Your task to perform on an android device: uninstall "HBO Max: Stream TV & Movies" Image 0: 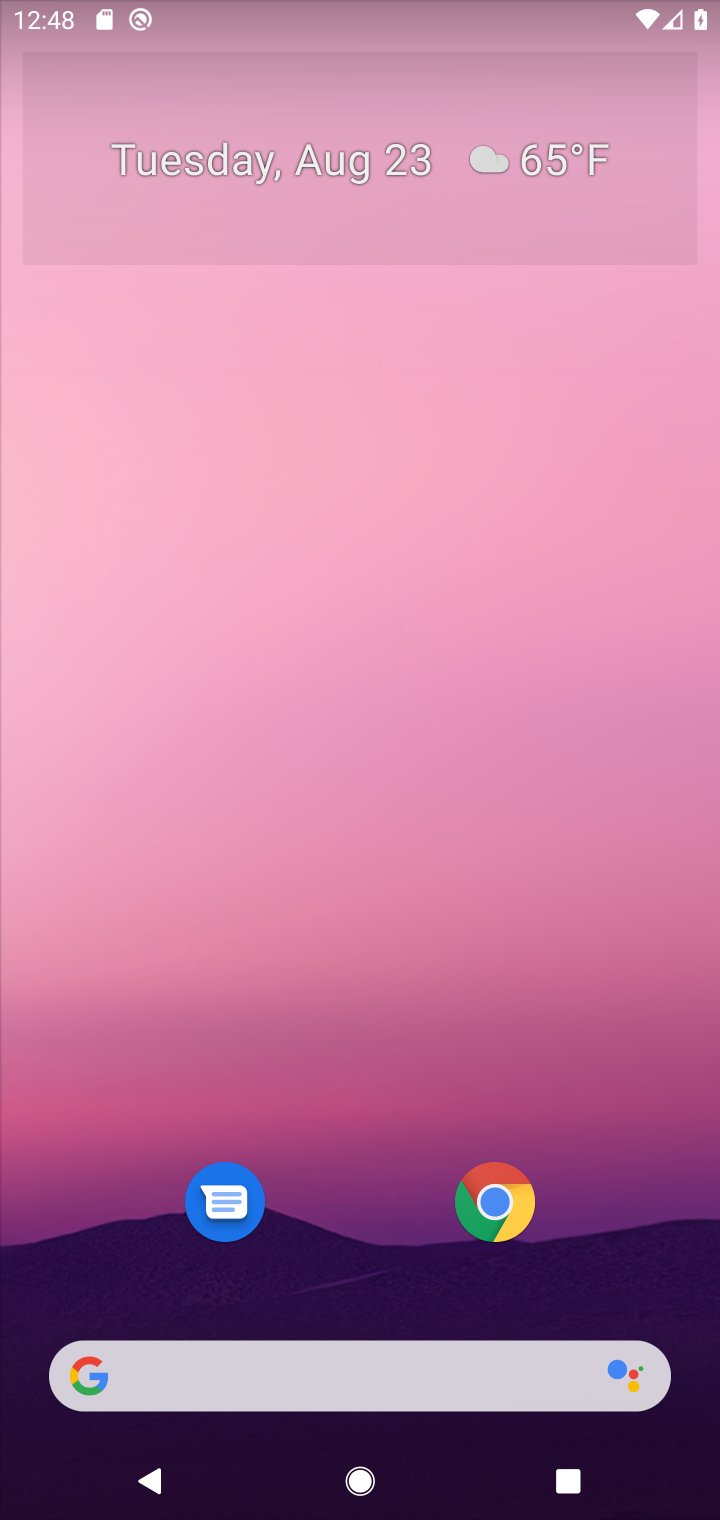
Step 0: drag from (405, 1327) to (495, 126)
Your task to perform on an android device: uninstall "HBO Max: Stream TV & Movies" Image 1: 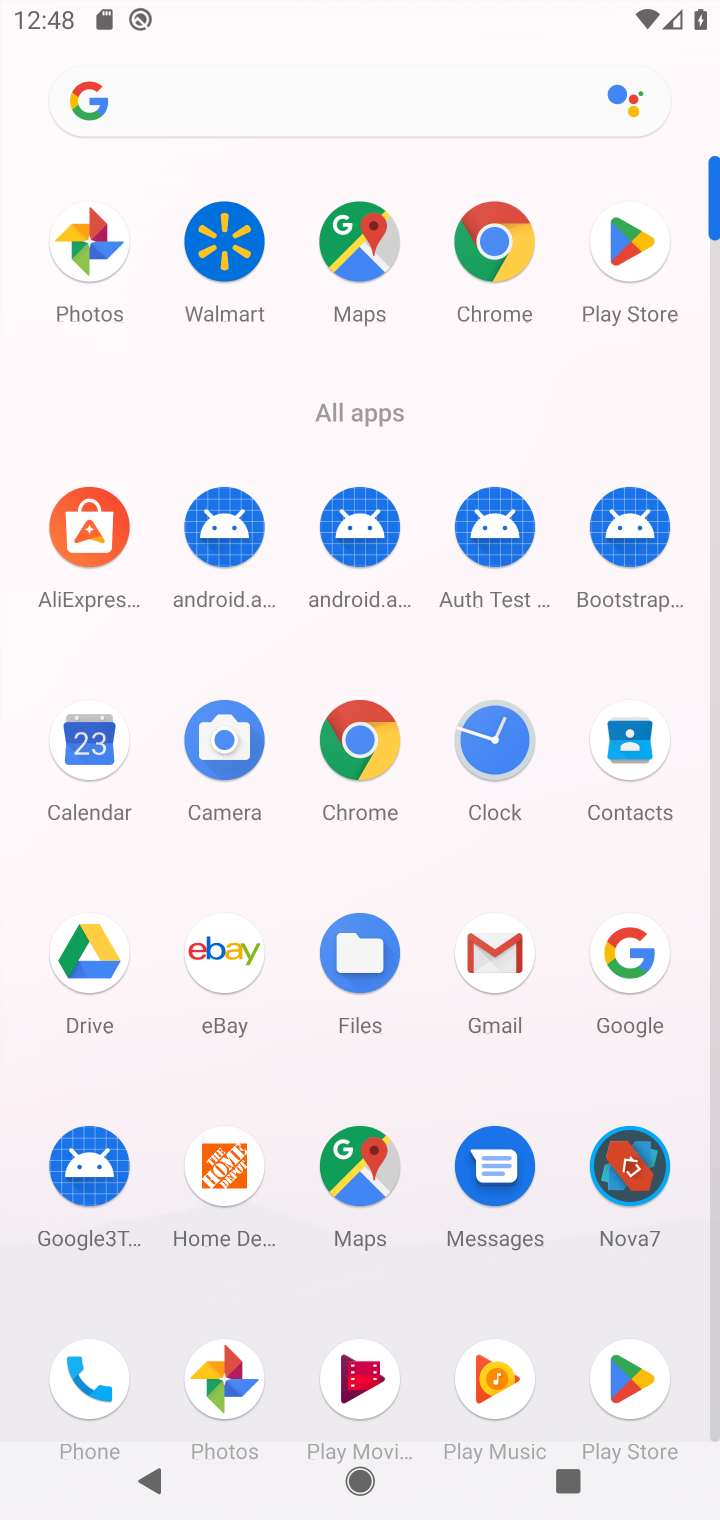
Step 1: click (611, 251)
Your task to perform on an android device: uninstall "HBO Max: Stream TV & Movies" Image 2: 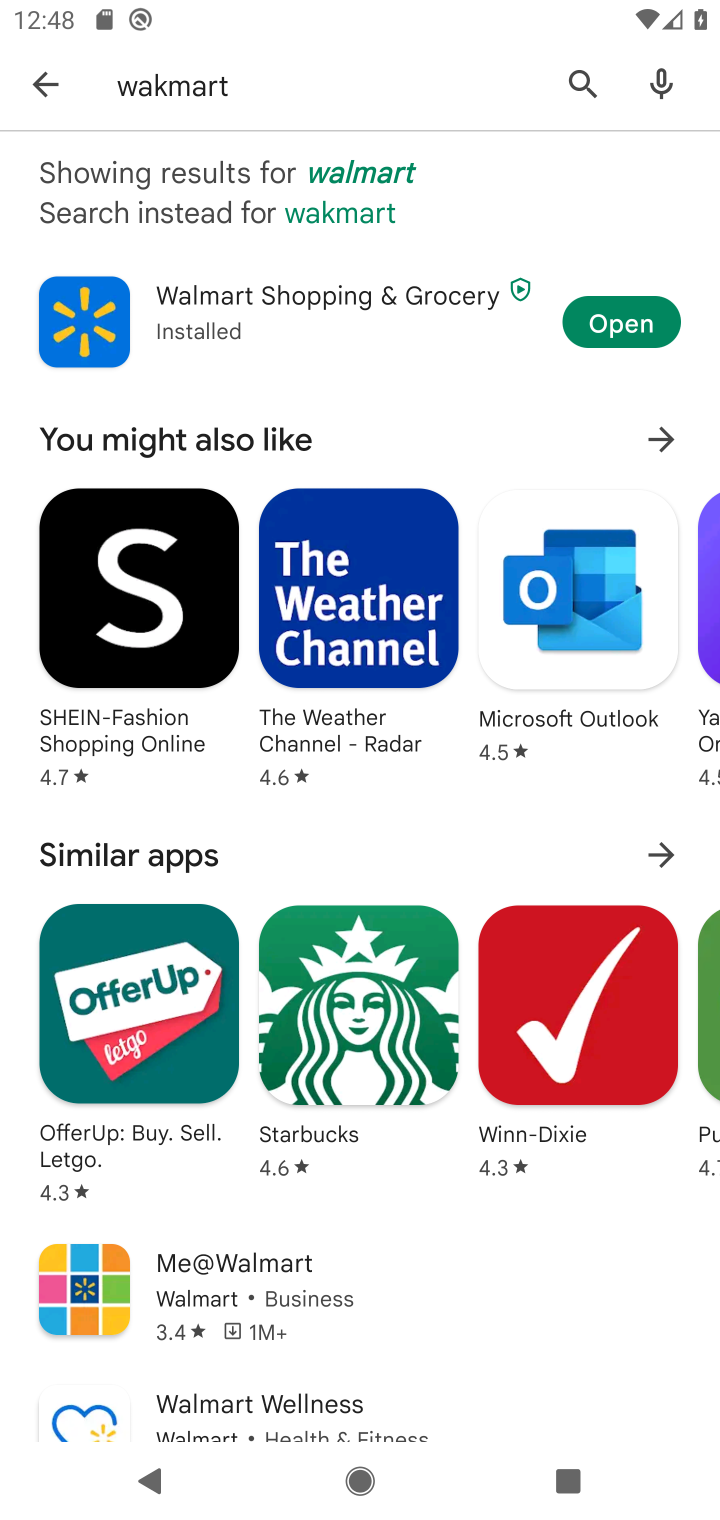
Step 2: click (576, 75)
Your task to perform on an android device: uninstall "HBO Max: Stream TV & Movies" Image 3: 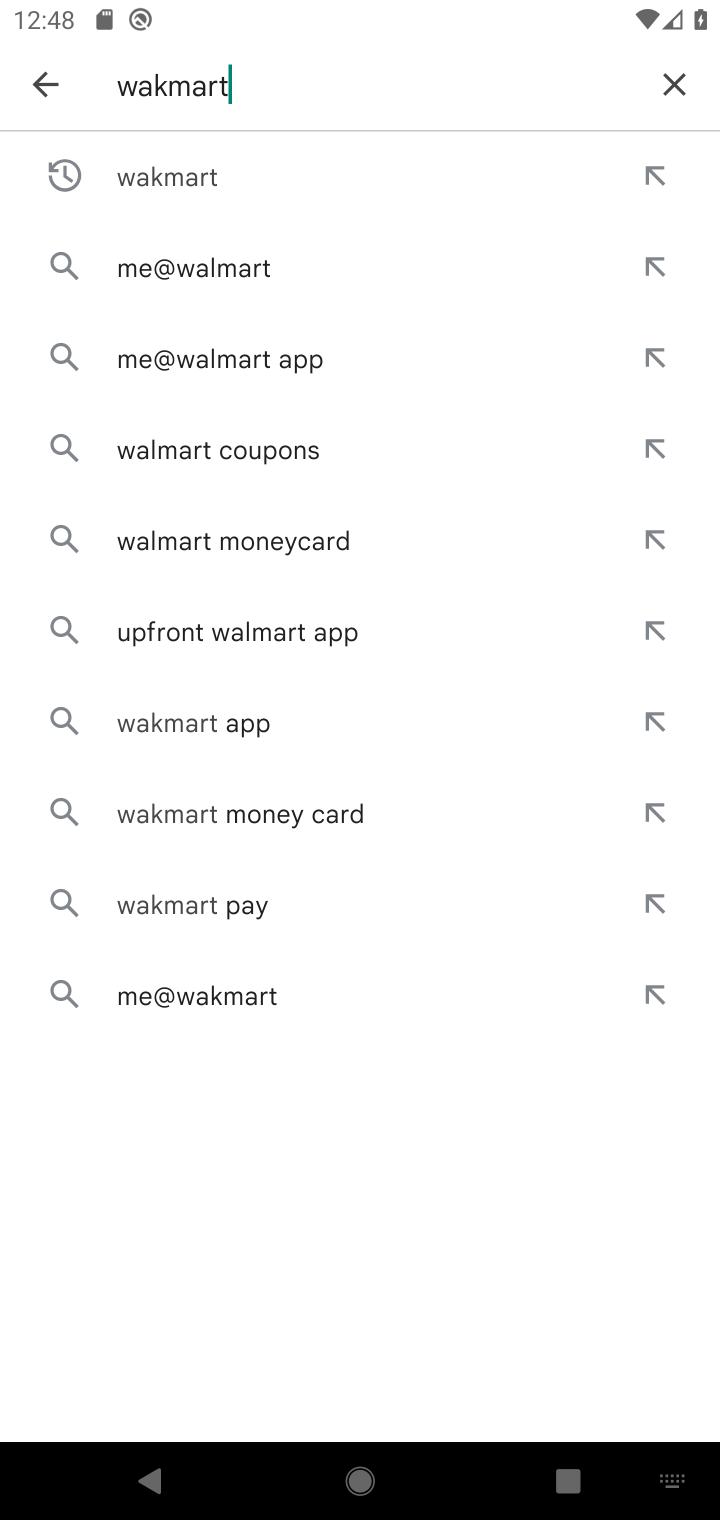
Step 3: click (668, 90)
Your task to perform on an android device: uninstall "HBO Max: Stream TV & Movies" Image 4: 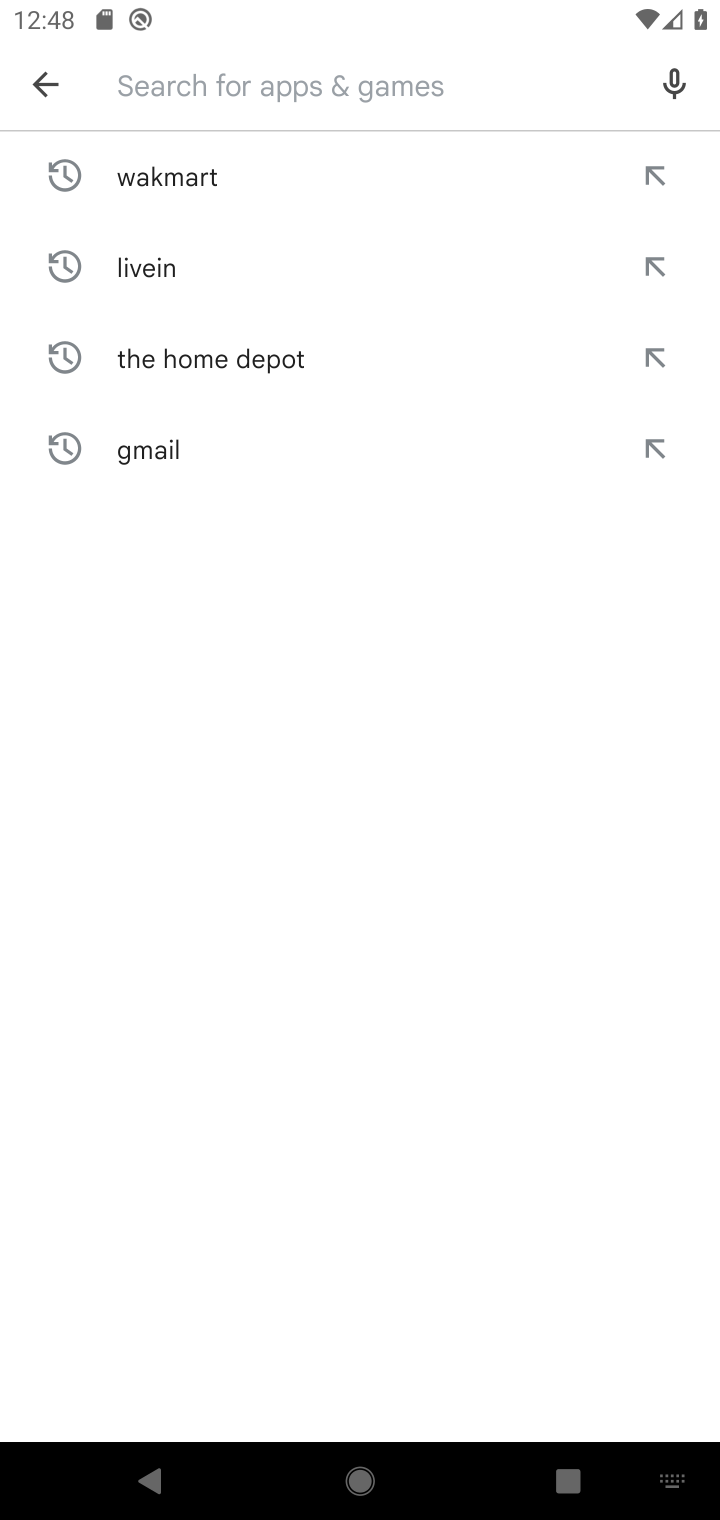
Step 4: type "hbo max"
Your task to perform on an android device: uninstall "HBO Max: Stream TV & Movies" Image 5: 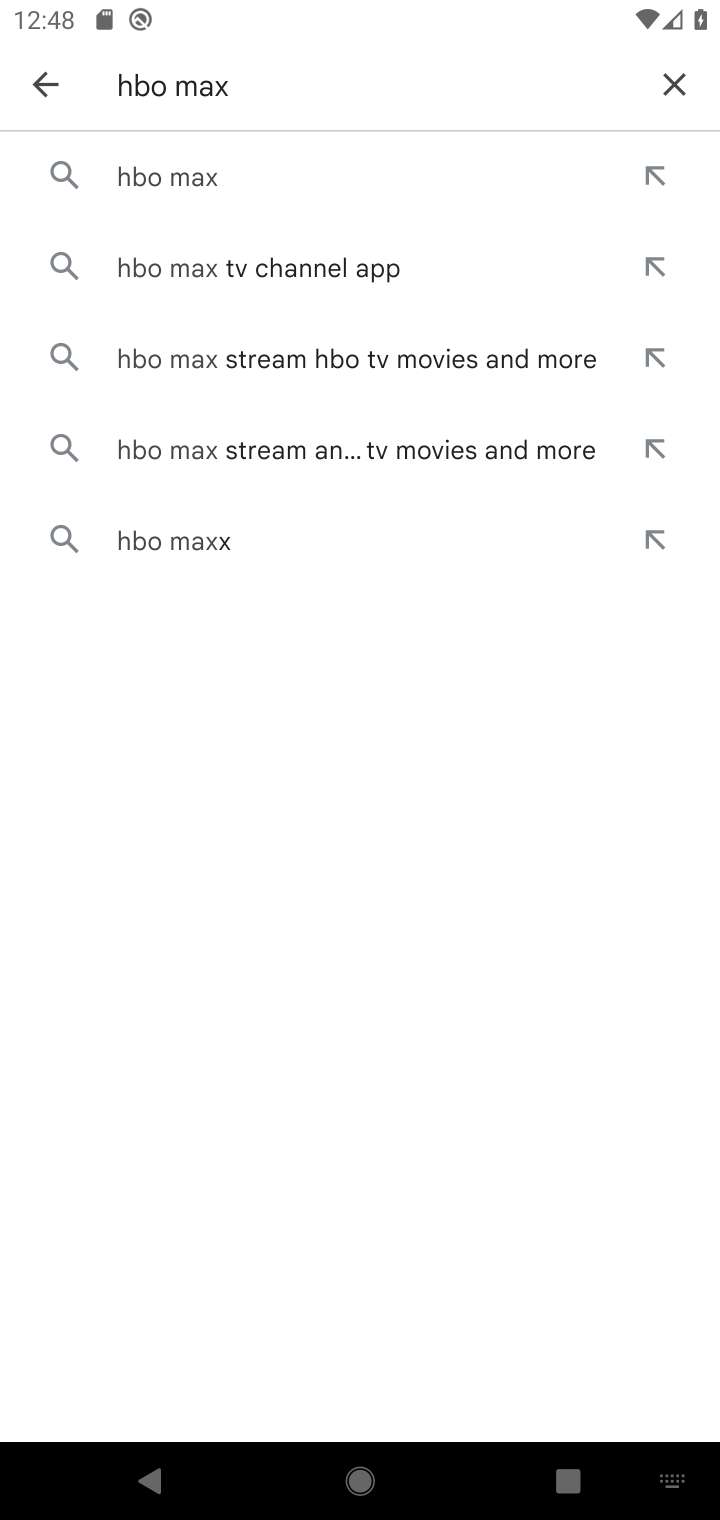
Step 5: click (229, 194)
Your task to perform on an android device: uninstall "HBO Max: Stream TV & Movies" Image 6: 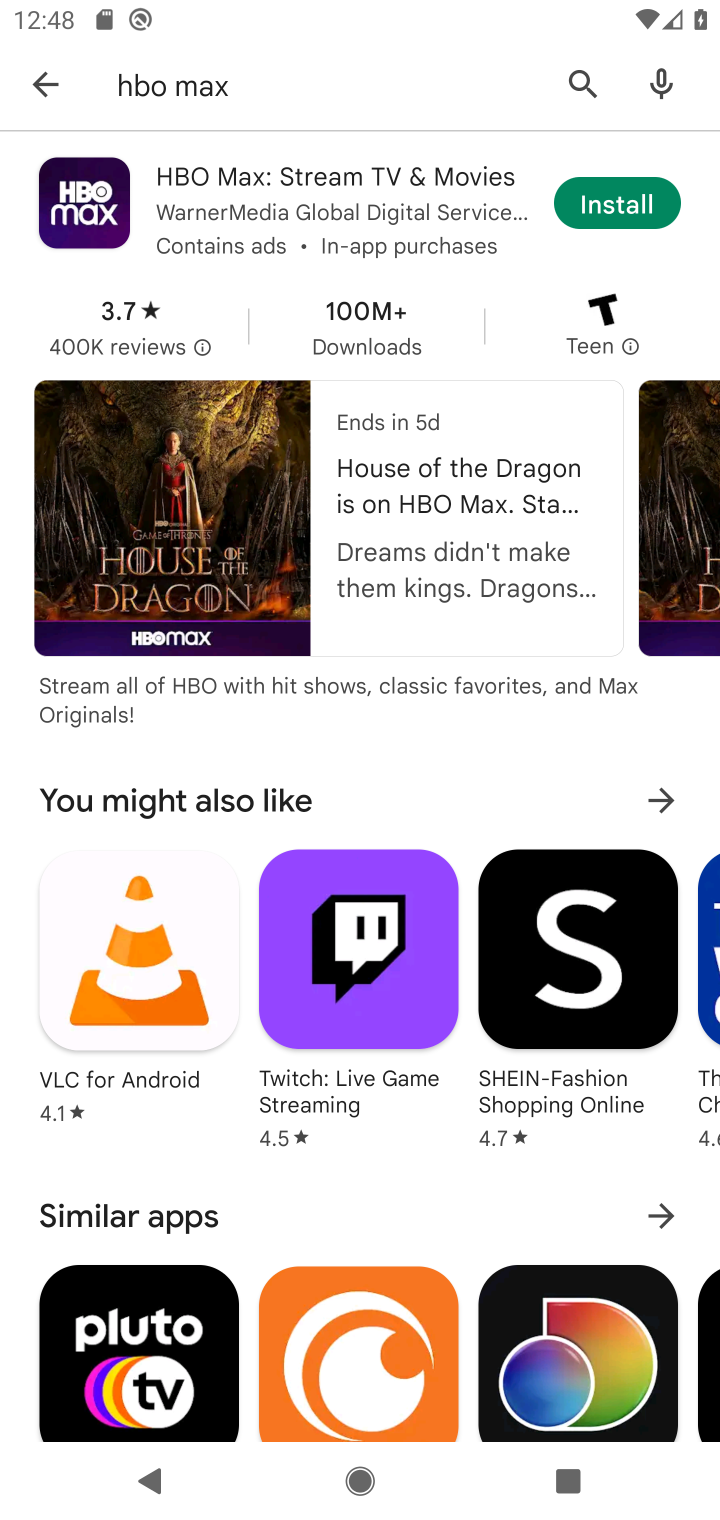
Step 6: task complete